Your task to perform on an android device: clear history in the chrome app Image 0: 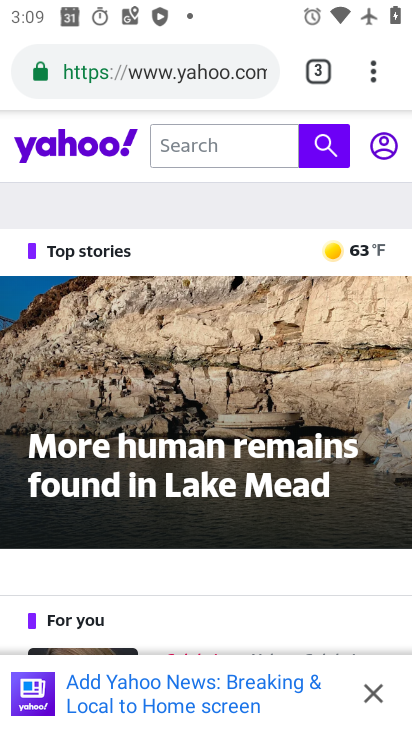
Step 0: press home button
Your task to perform on an android device: clear history in the chrome app Image 1: 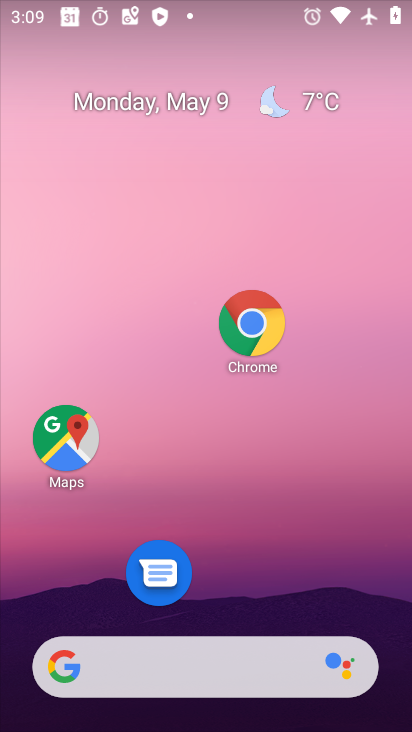
Step 1: drag from (185, 672) to (298, 121)
Your task to perform on an android device: clear history in the chrome app Image 2: 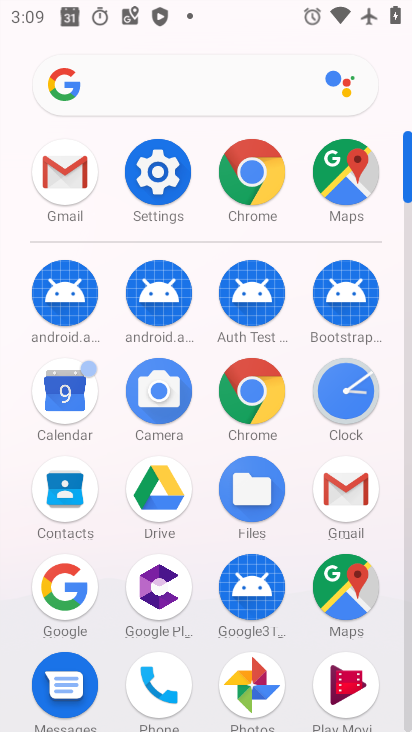
Step 2: click (267, 183)
Your task to perform on an android device: clear history in the chrome app Image 3: 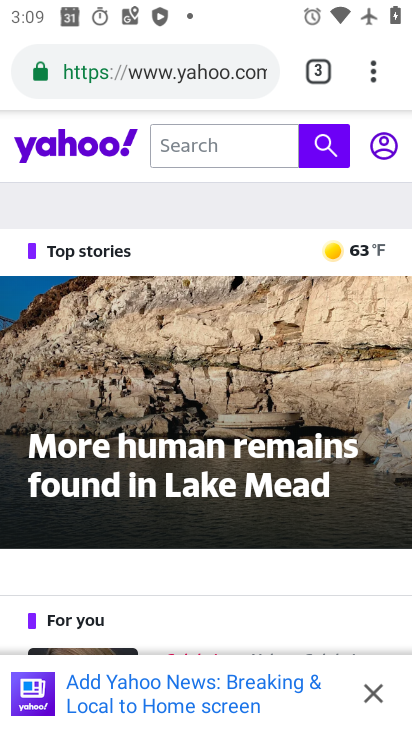
Step 3: drag from (374, 70) to (131, 408)
Your task to perform on an android device: clear history in the chrome app Image 4: 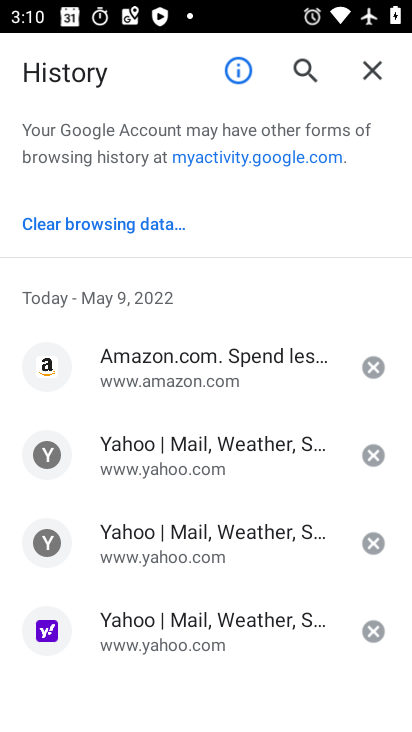
Step 4: click (126, 223)
Your task to perform on an android device: clear history in the chrome app Image 5: 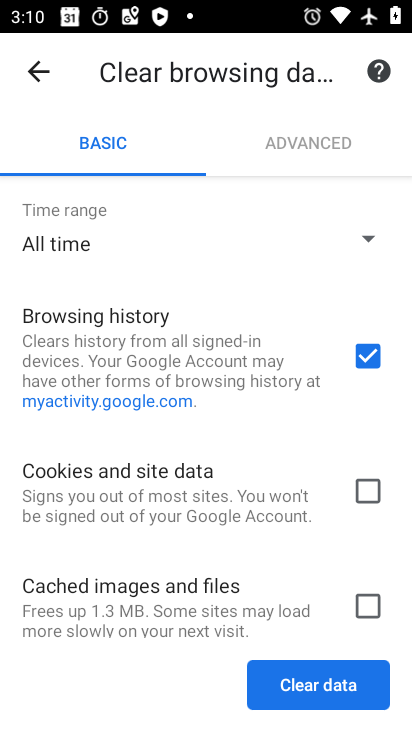
Step 5: click (373, 496)
Your task to perform on an android device: clear history in the chrome app Image 6: 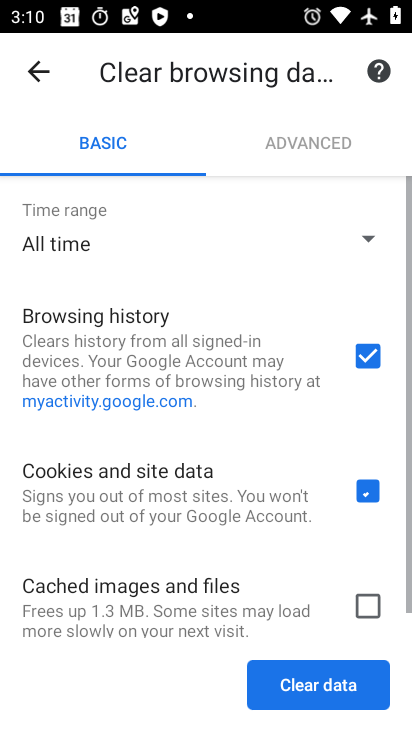
Step 6: click (366, 613)
Your task to perform on an android device: clear history in the chrome app Image 7: 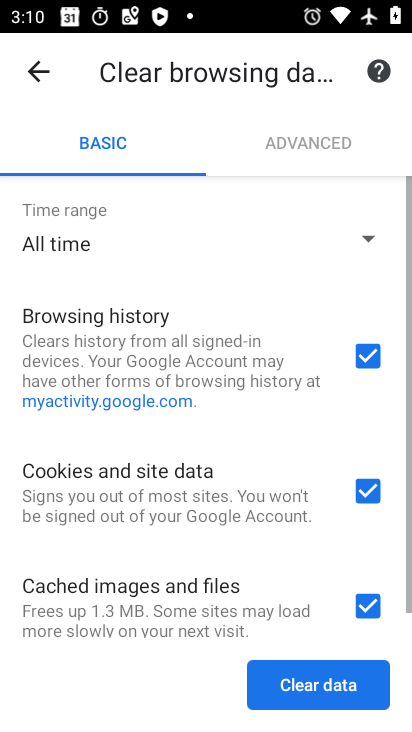
Step 7: click (326, 684)
Your task to perform on an android device: clear history in the chrome app Image 8: 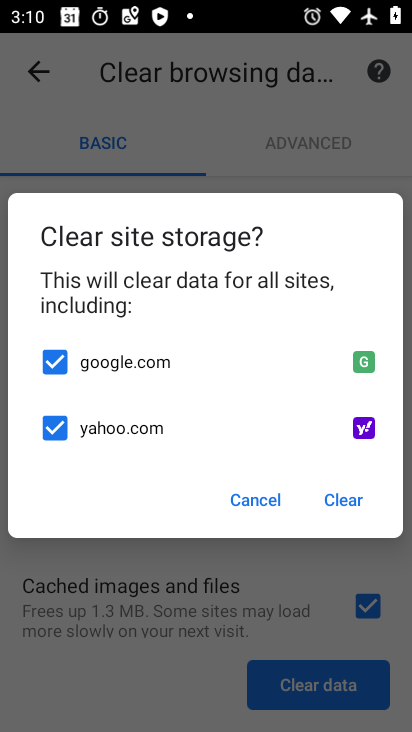
Step 8: click (348, 495)
Your task to perform on an android device: clear history in the chrome app Image 9: 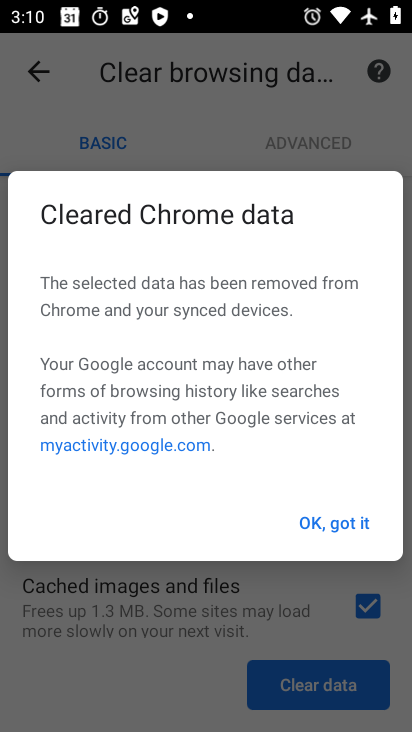
Step 9: click (346, 529)
Your task to perform on an android device: clear history in the chrome app Image 10: 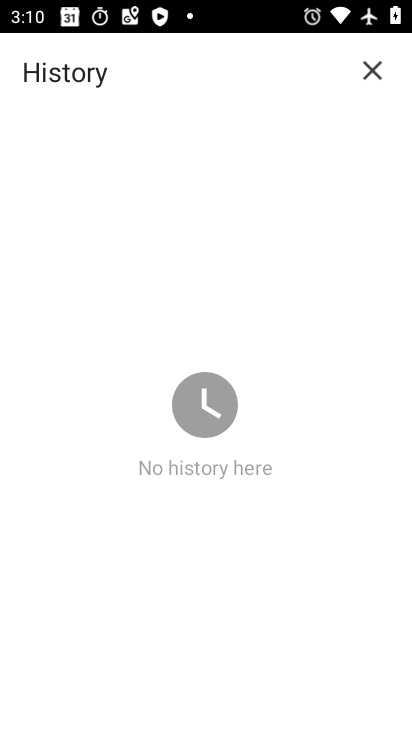
Step 10: task complete